Your task to perform on an android device: toggle data saver in the chrome app Image 0: 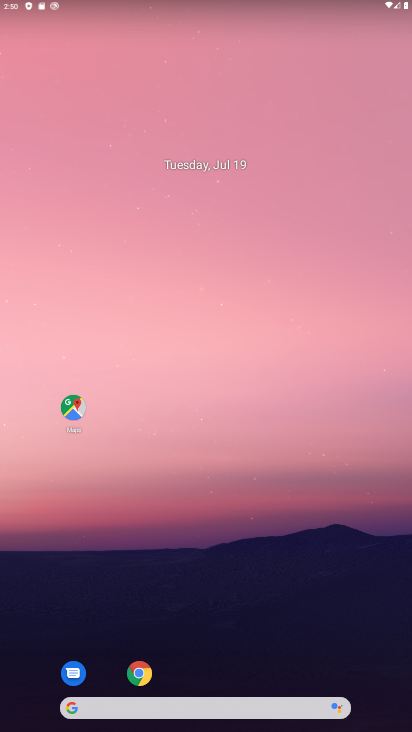
Step 0: drag from (273, 628) to (272, 91)
Your task to perform on an android device: toggle data saver in the chrome app Image 1: 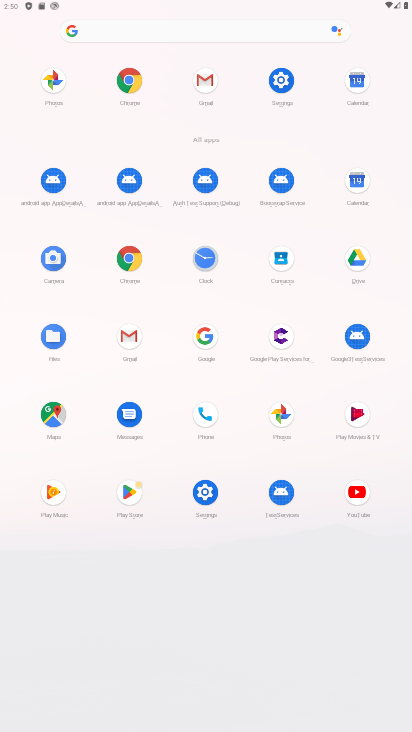
Step 1: click (136, 264)
Your task to perform on an android device: toggle data saver in the chrome app Image 2: 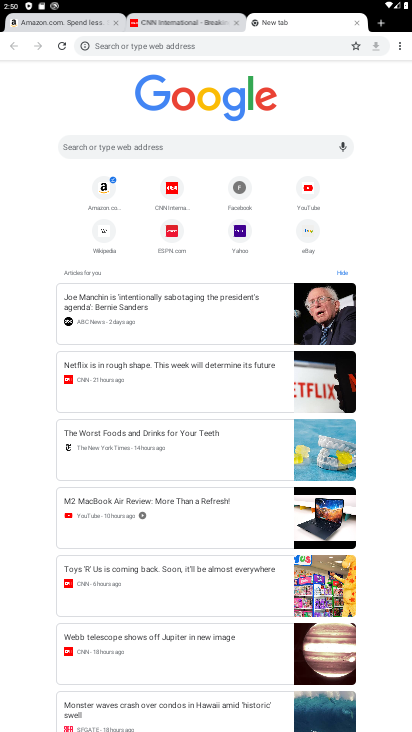
Step 2: click (401, 46)
Your task to perform on an android device: toggle data saver in the chrome app Image 3: 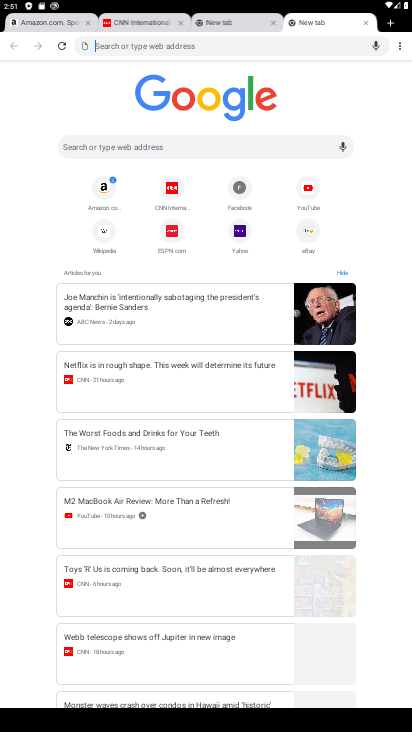
Step 3: click (401, 46)
Your task to perform on an android device: toggle data saver in the chrome app Image 4: 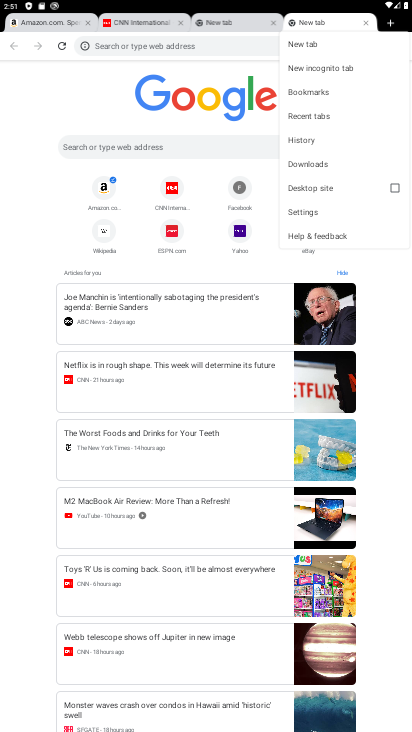
Step 4: click (327, 212)
Your task to perform on an android device: toggle data saver in the chrome app Image 5: 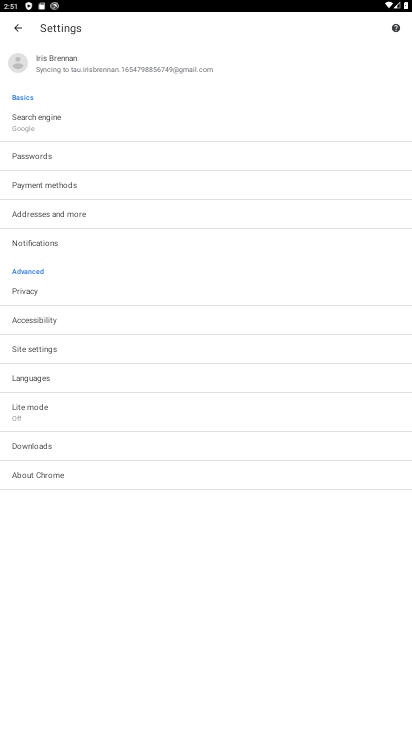
Step 5: click (83, 415)
Your task to perform on an android device: toggle data saver in the chrome app Image 6: 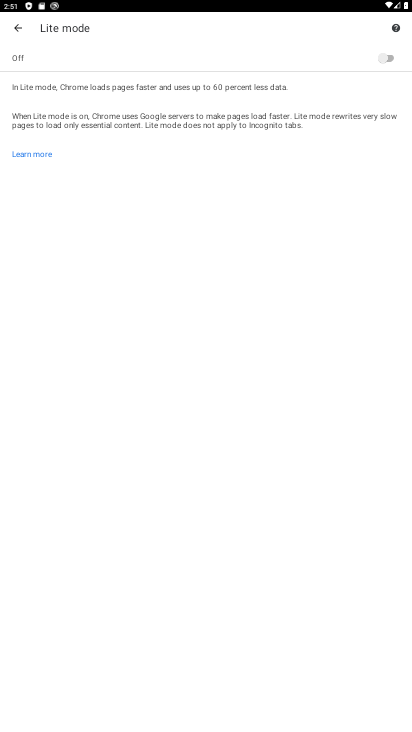
Step 6: click (389, 53)
Your task to perform on an android device: toggle data saver in the chrome app Image 7: 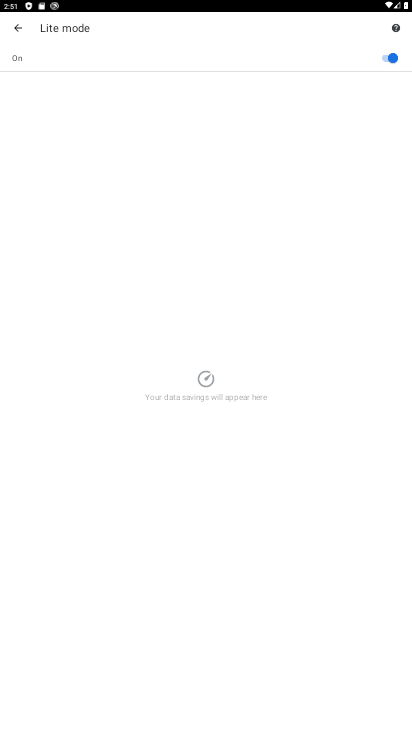
Step 7: task complete